Your task to perform on an android device: What's the weather going to be this weekend? Image 0: 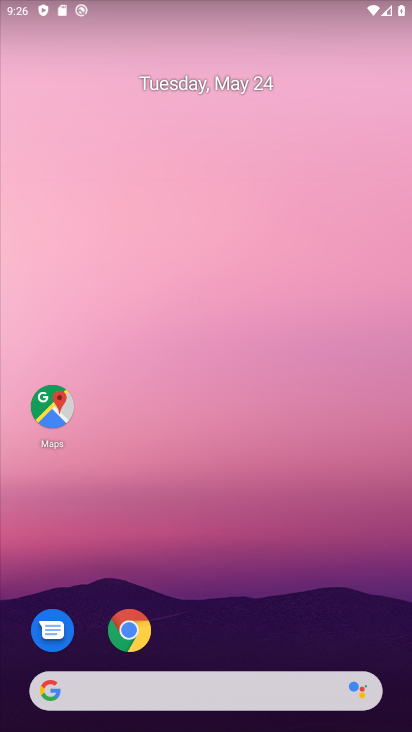
Step 0: press home button
Your task to perform on an android device: What's the weather going to be this weekend? Image 1: 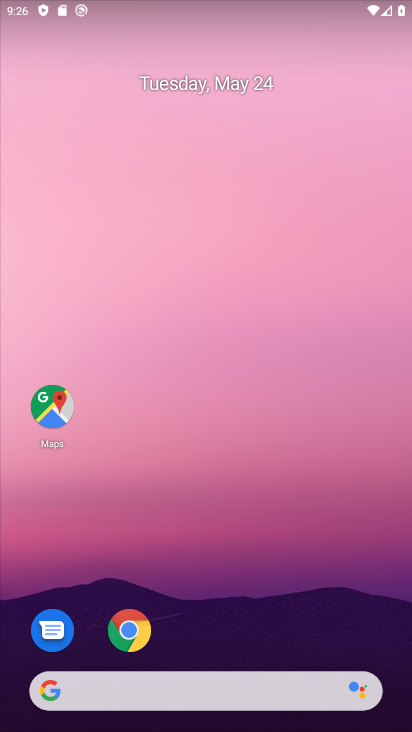
Step 1: drag from (215, 642) to (236, 118)
Your task to perform on an android device: What's the weather going to be this weekend? Image 2: 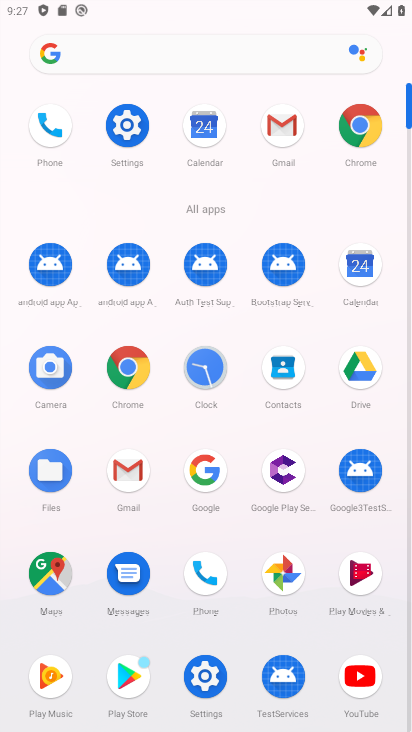
Step 2: press back button
Your task to perform on an android device: What's the weather going to be this weekend? Image 3: 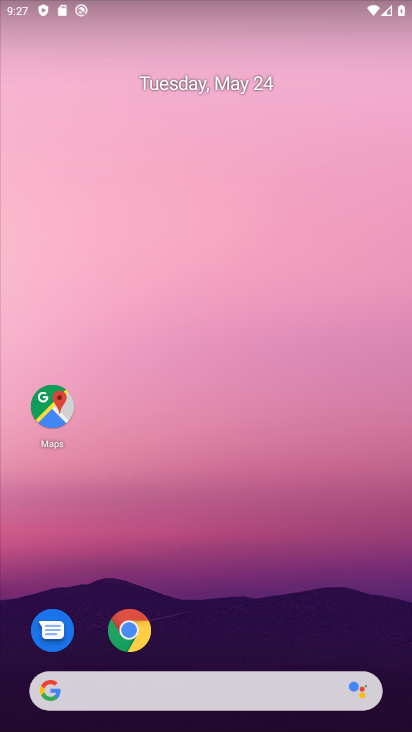
Step 3: drag from (20, 284) to (394, 278)
Your task to perform on an android device: What's the weather going to be this weekend? Image 4: 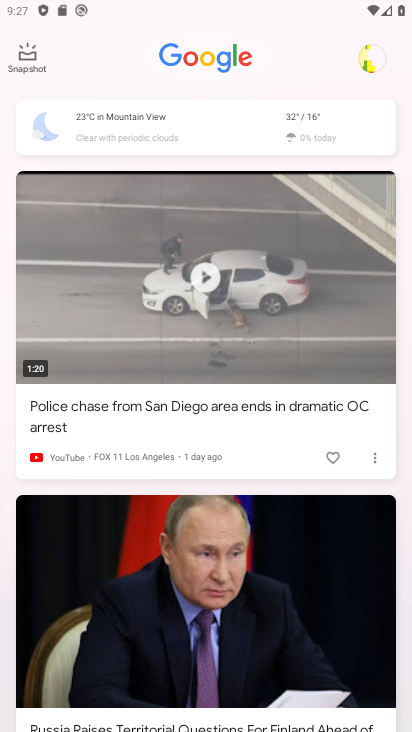
Step 4: click (268, 120)
Your task to perform on an android device: What's the weather going to be this weekend? Image 5: 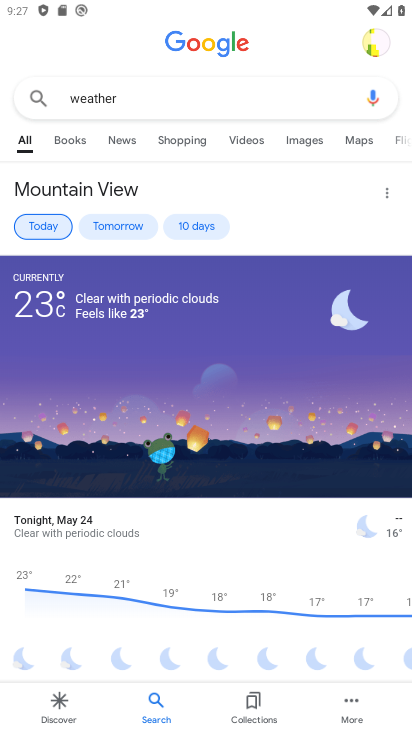
Step 5: click (186, 226)
Your task to perform on an android device: What's the weather going to be this weekend? Image 6: 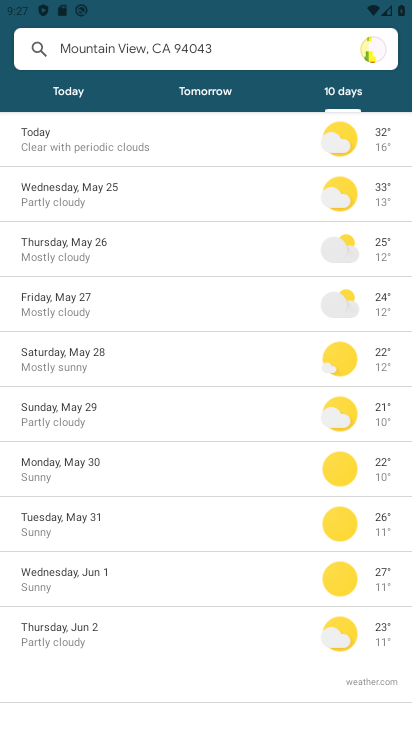
Step 6: task complete